Your task to perform on an android device: Go to display settings Image 0: 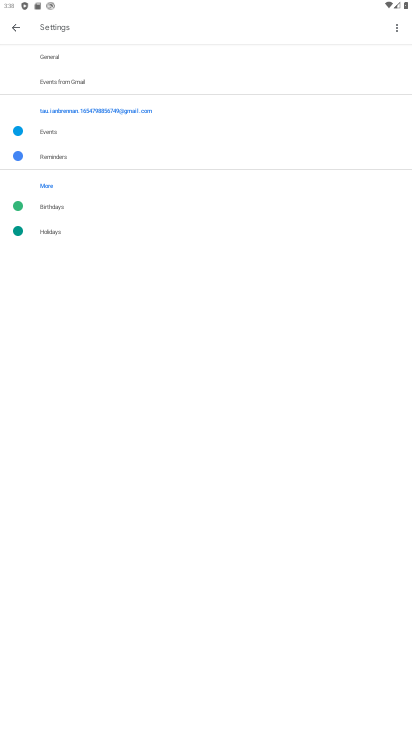
Step 0: press home button
Your task to perform on an android device: Go to display settings Image 1: 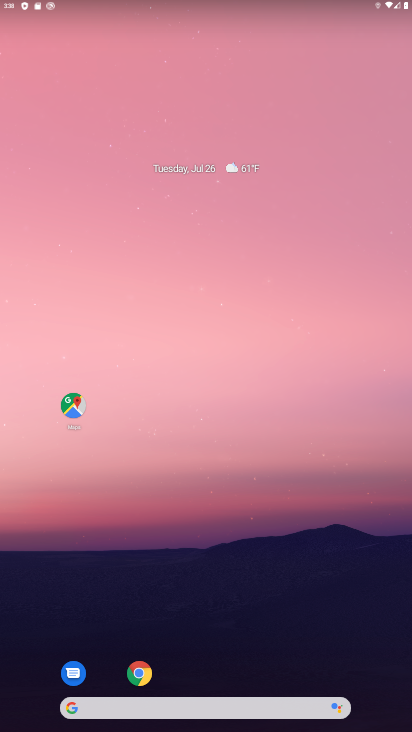
Step 1: drag from (203, 676) to (290, 136)
Your task to perform on an android device: Go to display settings Image 2: 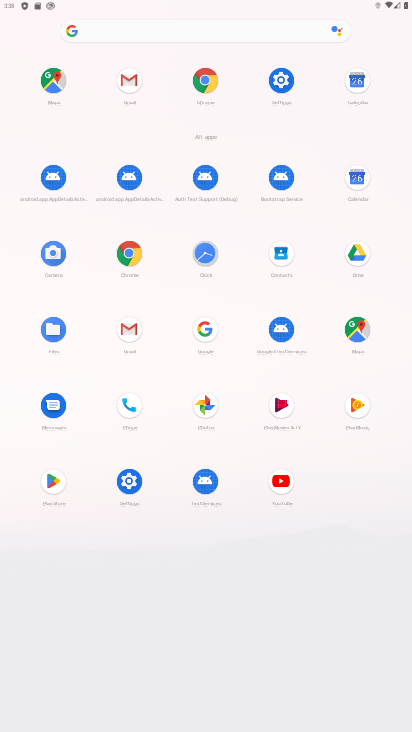
Step 2: click (283, 73)
Your task to perform on an android device: Go to display settings Image 3: 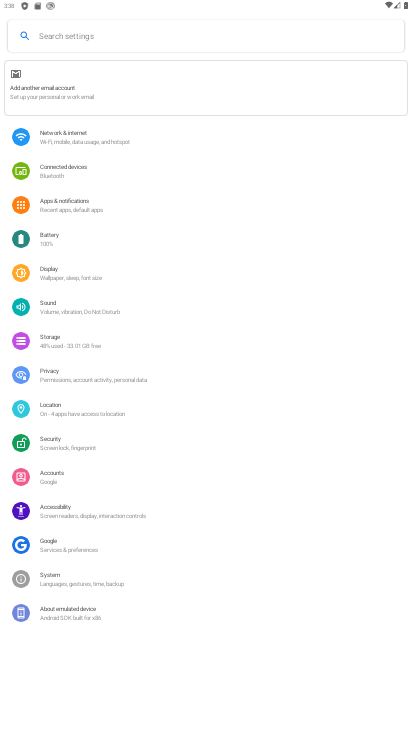
Step 3: click (59, 274)
Your task to perform on an android device: Go to display settings Image 4: 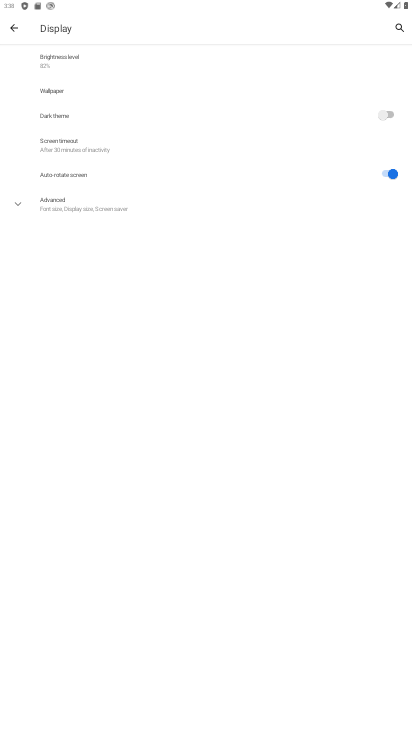
Step 4: click (17, 205)
Your task to perform on an android device: Go to display settings Image 5: 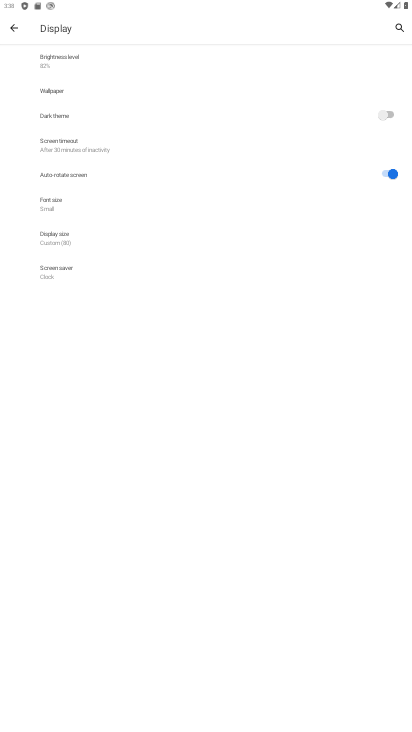
Step 5: task complete